Your task to perform on an android device: show emergency info Image 0: 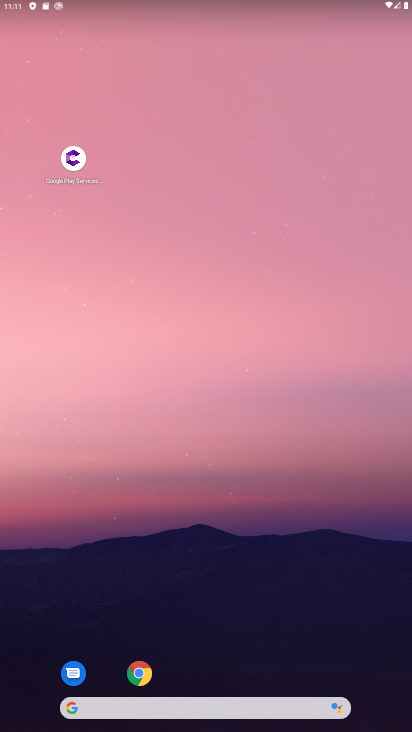
Step 0: drag from (282, 595) to (295, 18)
Your task to perform on an android device: show emergency info Image 1: 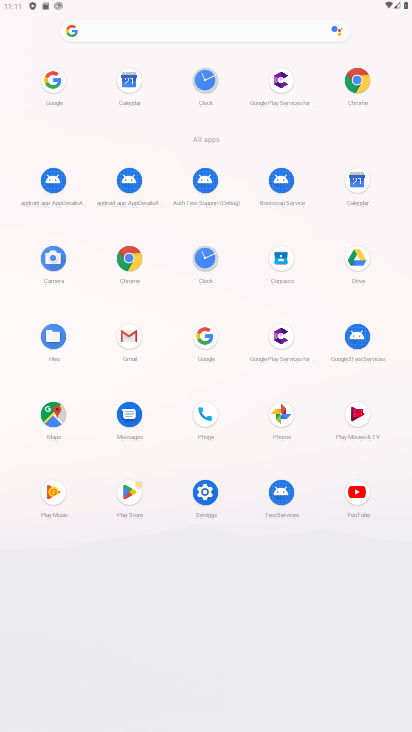
Step 1: click (196, 499)
Your task to perform on an android device: show emergency info Image 2: 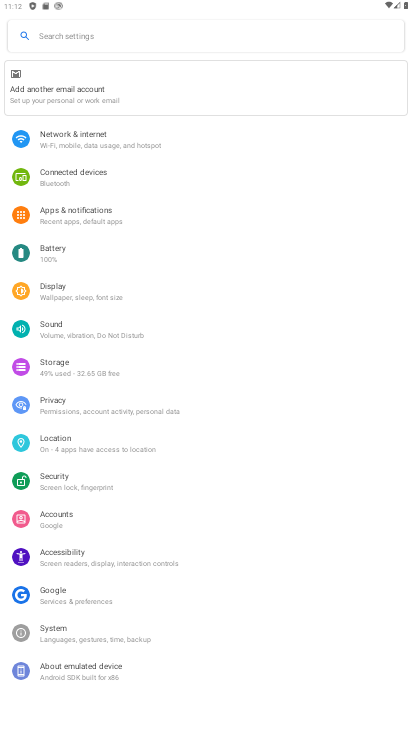
Step 2: drag from (137, 595) to (201, 26)
Your task to perform on an android device: show emergency info Image 3: 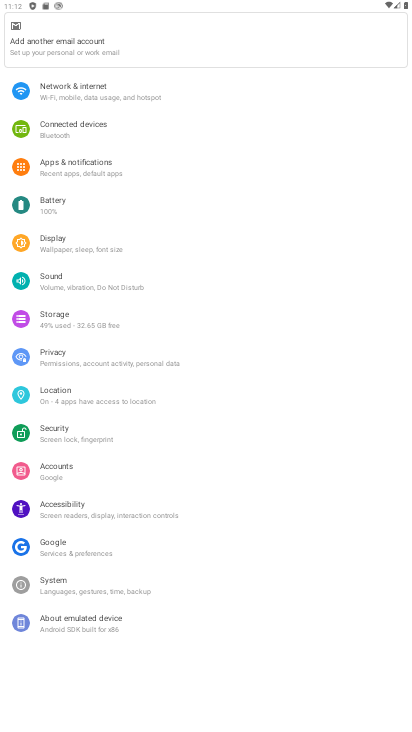
Step 3: click (71, 630)
Your task to perform on an android device: show emergency info Image 4: 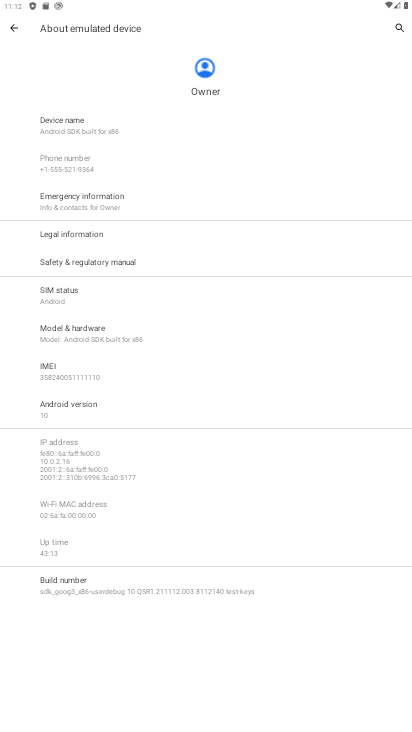
Step 4: click (110, 208)
Your task to perform on an android device: show emergency info Image 5: 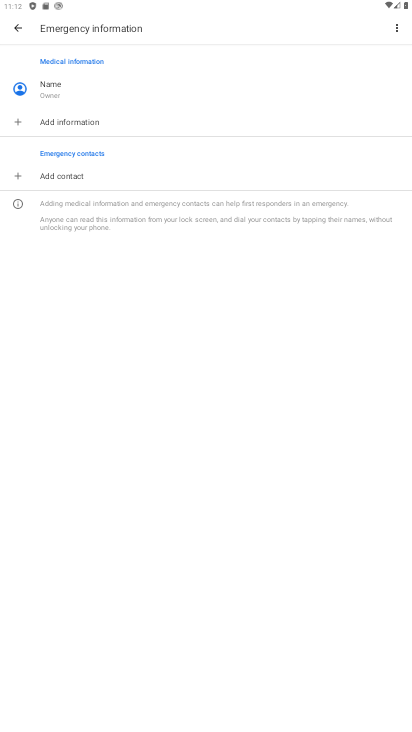
Step 5: task complete